Your task to perform on an android device: Toggle the flashlight Image 0: 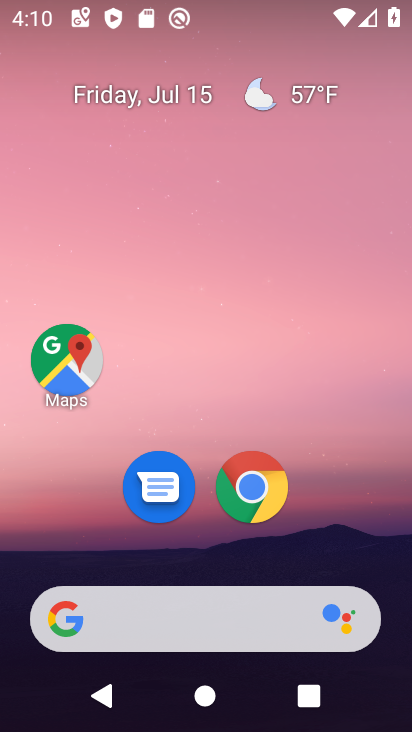
Step 0: drag from (224, 624) to (264, 242)
Your task to perform on an android device: Toggle the flashlight Image 1: 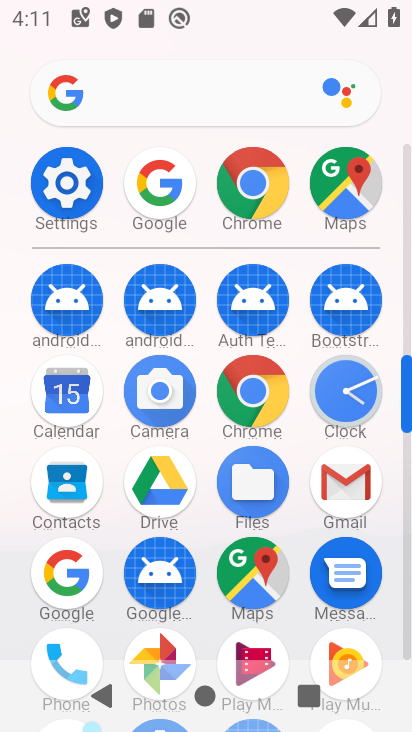
Step 1: task complete